Your task to perform on an android device: toggle notifications settings in the gmail app Image 0: 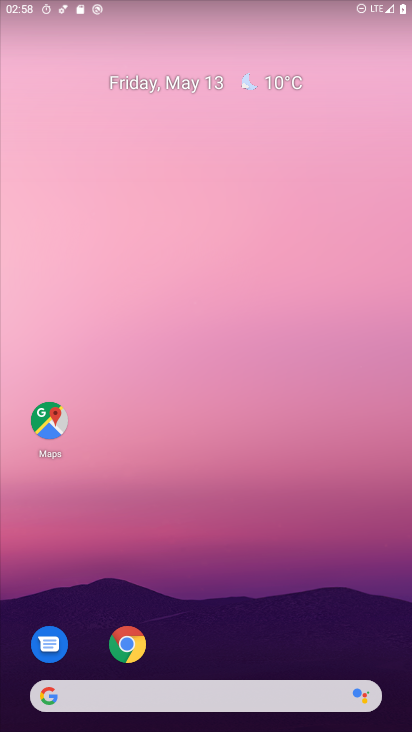
Step 0: drag from (214, 681) to (309, 11)
Your task to perform on an android device: toggle notifications settings in the gmail app Image 1: 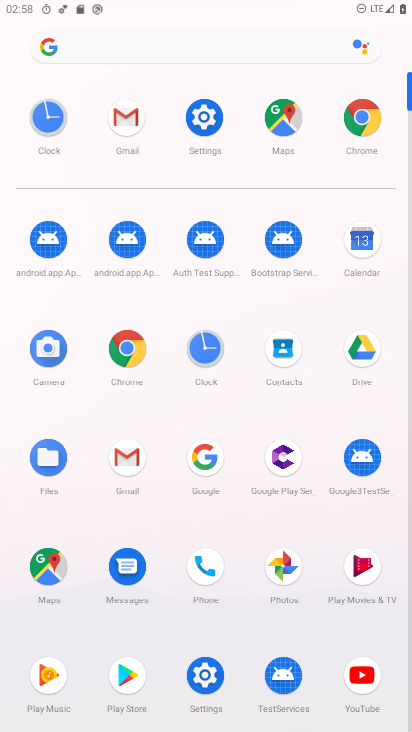
Step 1: click (129, 454)
Your task to perform on an android device: toggle notifications settings in the gmail app Image 2: 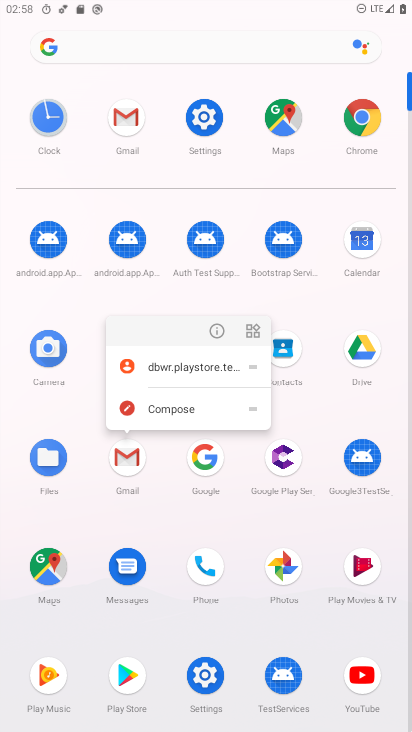
Step 2: click (206, 117)
Your task to perform on an android device: toggle notifications settings in the gmail app Image 3: 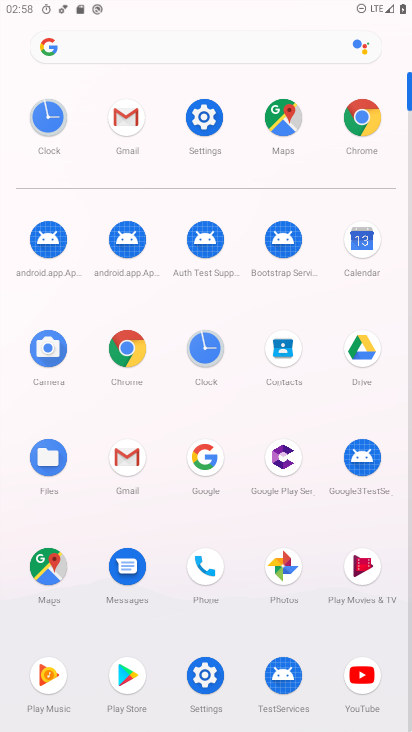
Step 3: press back button
Your task to perform on an android device: toggle notifications settings in the gmail app Image 4: 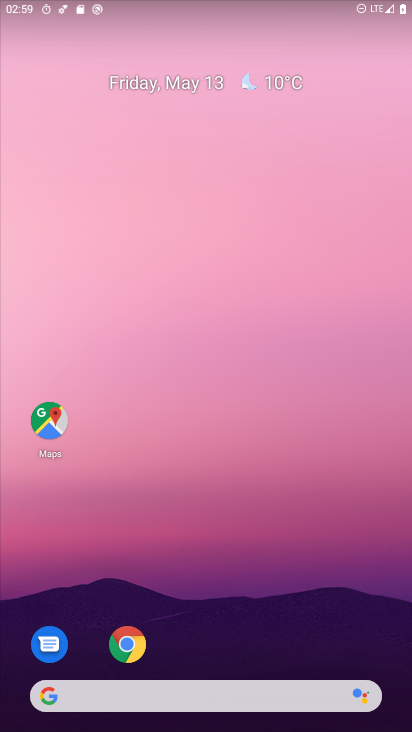
Step 4: drag from (267, 706) to (285, 231)
Your task to perform on an android device: toggle notifications settings in the gmail app Image 5: 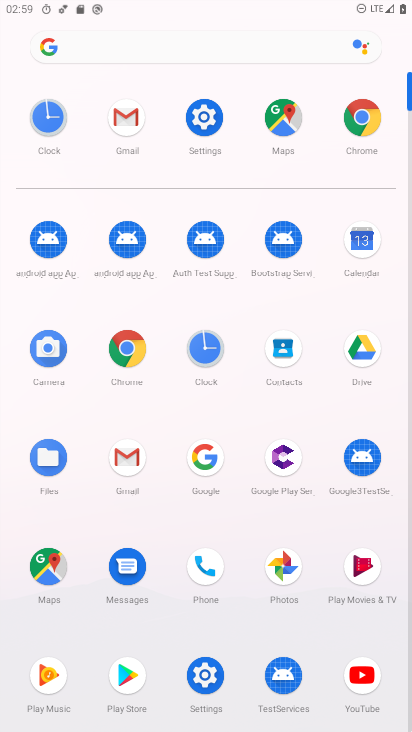
Step 5: click (124, 461)
Your task to perform on an android device: toggle notifications settings in the gmail app Image 6: 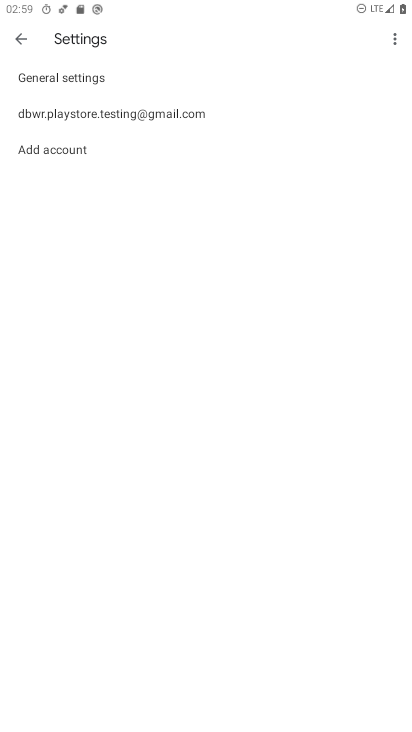
Step 6: click (164, 111)
Your task to perform on an android device: toggle notifications settings in the gmail app Image 7: 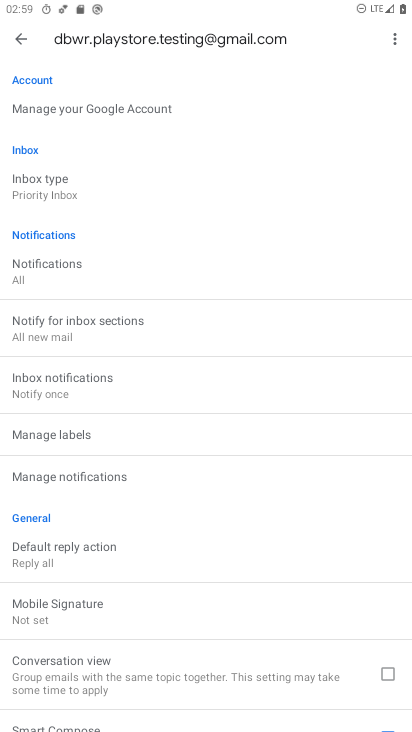
Step 7: click (101, 464)
Your task to perform on an android device: toggle notifications settings in the gmail app Image 8: 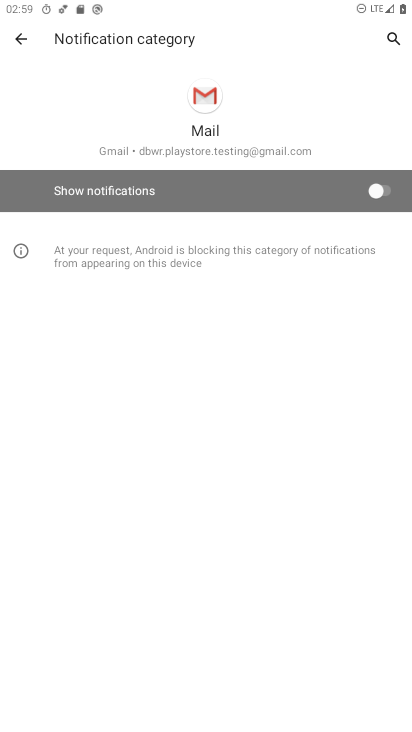
Step 8: click (386, 189)
Your task to perform on an android device: toggle notifications settings in the gmail app Image 9: 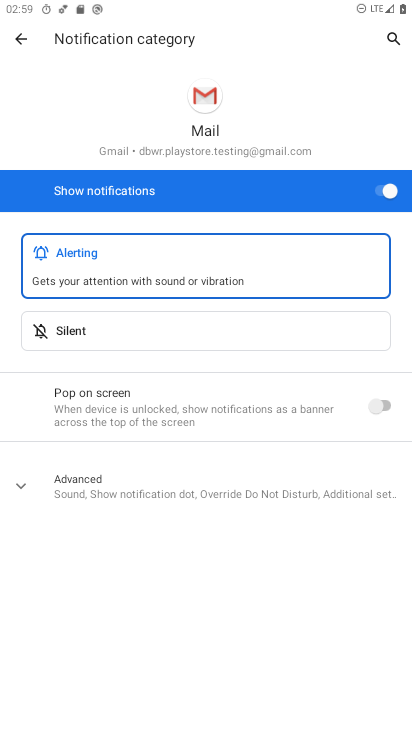
Step 9: task complete